Your task to perform on an android device: Go to wifi settings Image 0: 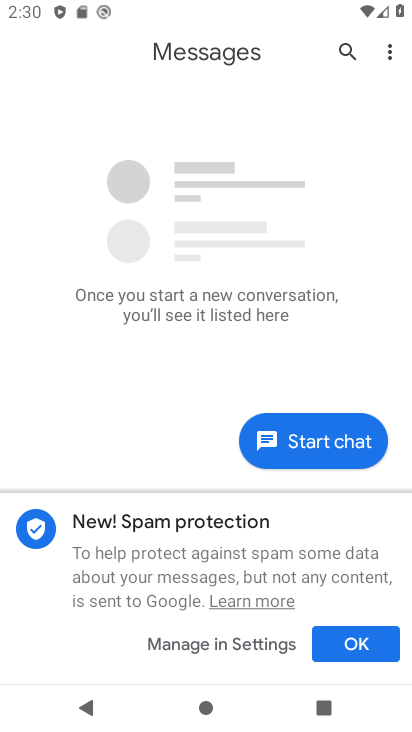
Step 0: press home button
Your task to perform on an android device: Go to wifi settings Image 1: 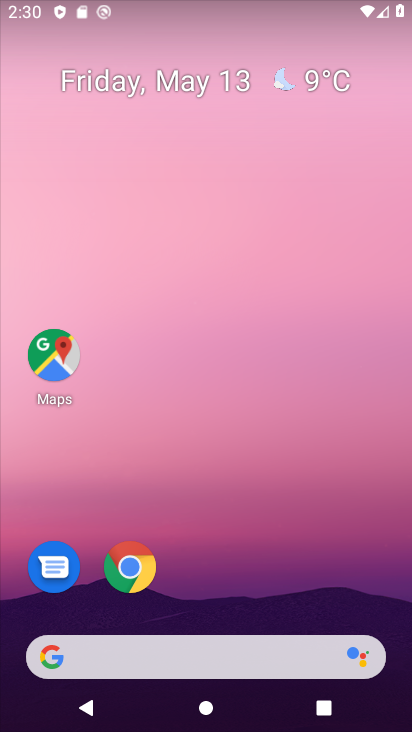
Step 1: drag from (340, 598) to (326, 5)
Your task to perform on an android device: Go to wifi settings Image 2: 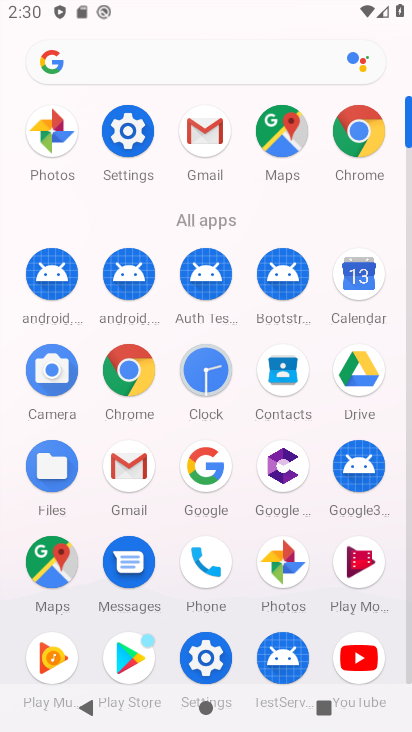
Step 2: click (122, 139)
Your task to perform on an android device: Go to wifi settings Image 3: 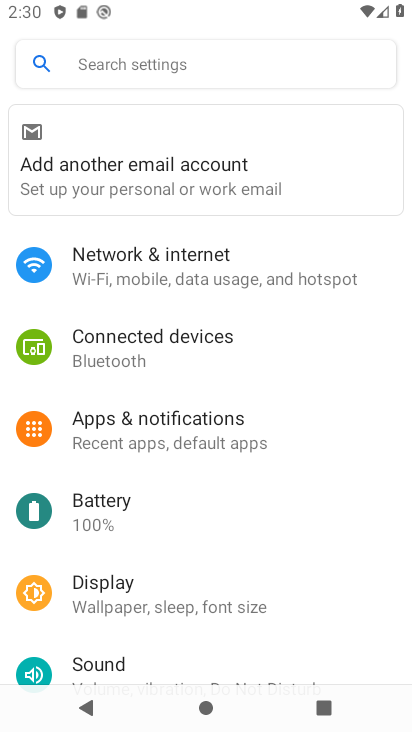
Step 3: click (168, 276)
Your task to perform on an android device: Go to wifi settings Image 4: 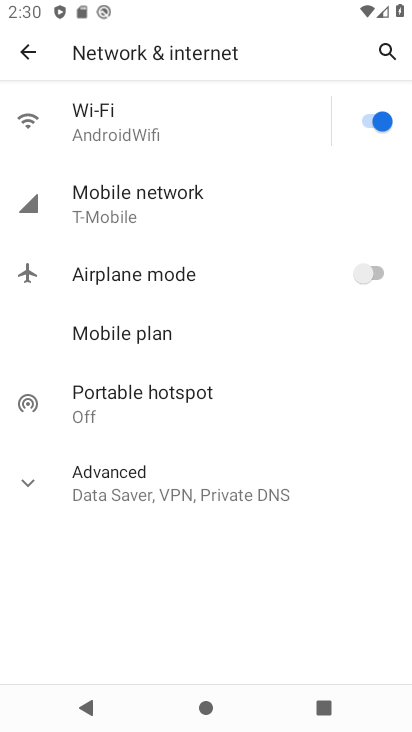
Step 4: click (78, 132)
Your task to perform on an android device: Go to wifi settings Image 5: 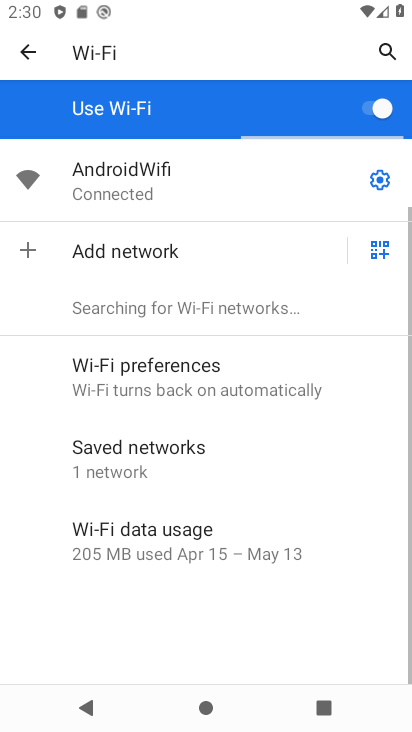
Step 5: task complete